Your task to perform on an android device: Search for "razer blackwidow" on bestbuy, select the first entry, and add it to the cart. Image 0: 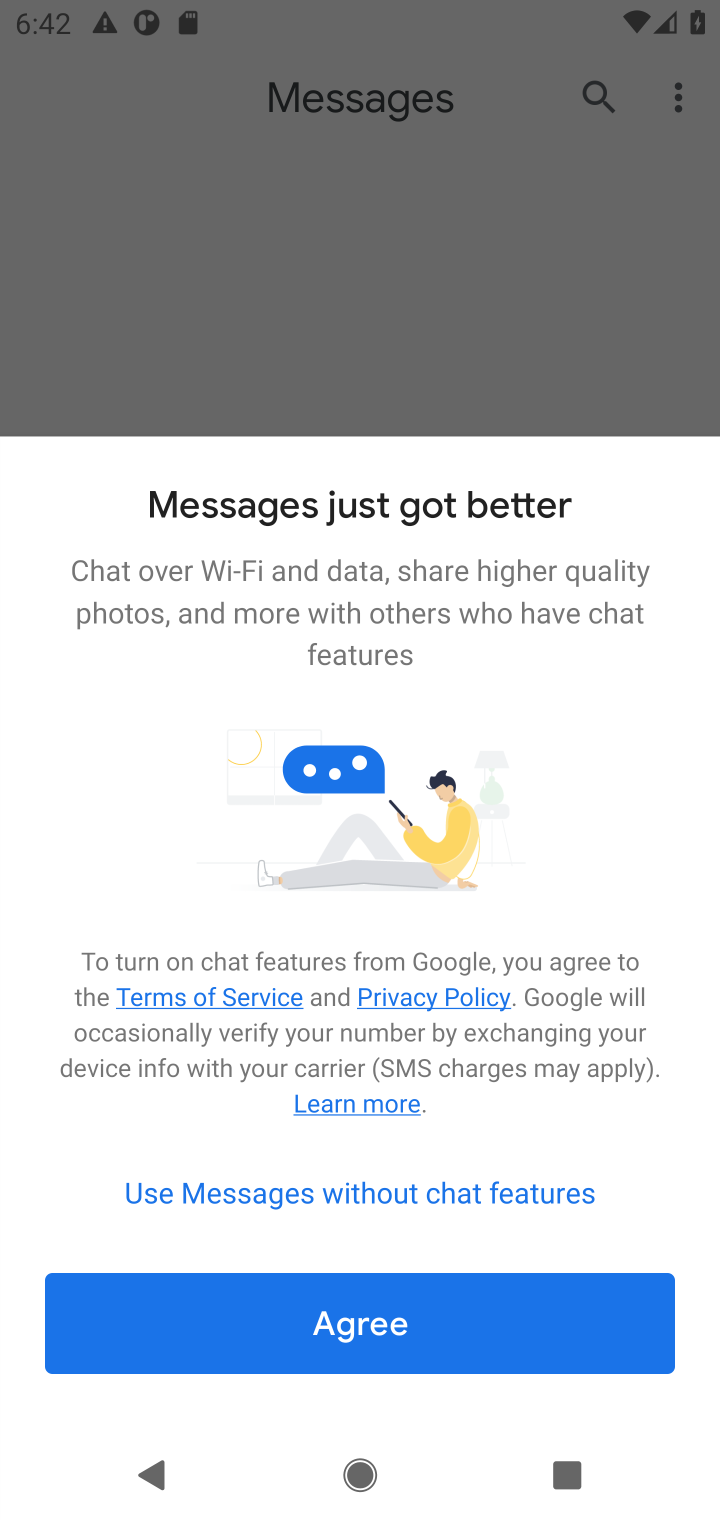
Step 0: press home button
Your task to perform on an android device: Search for "razer blackwidow" on bestbuy, select the first entry, and add it to the cart. Image 1: 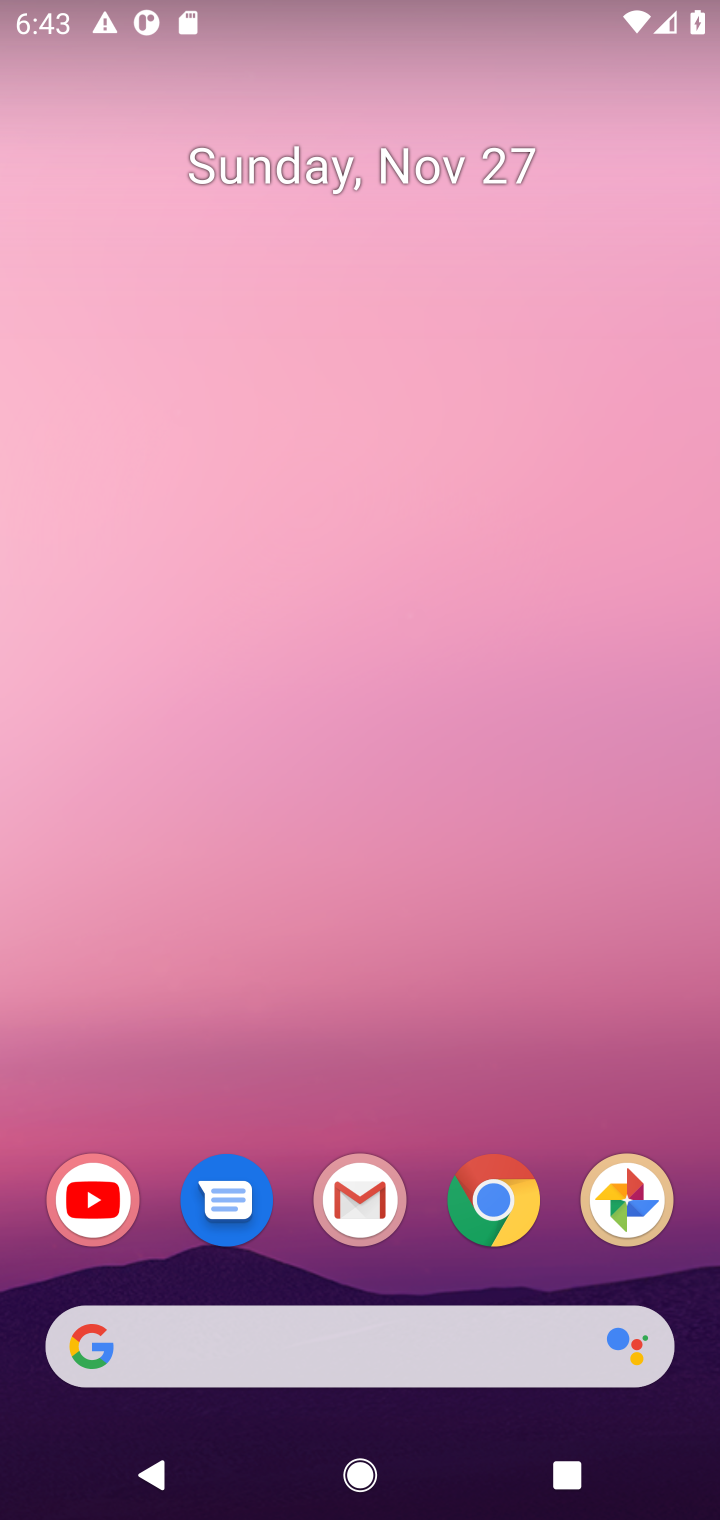
Step 1: click (505, 1212)
Your task to perform on an android device: Search for "razer blackwidow" on bestbuy, select the first entry, and add it to the cart. Image 2: 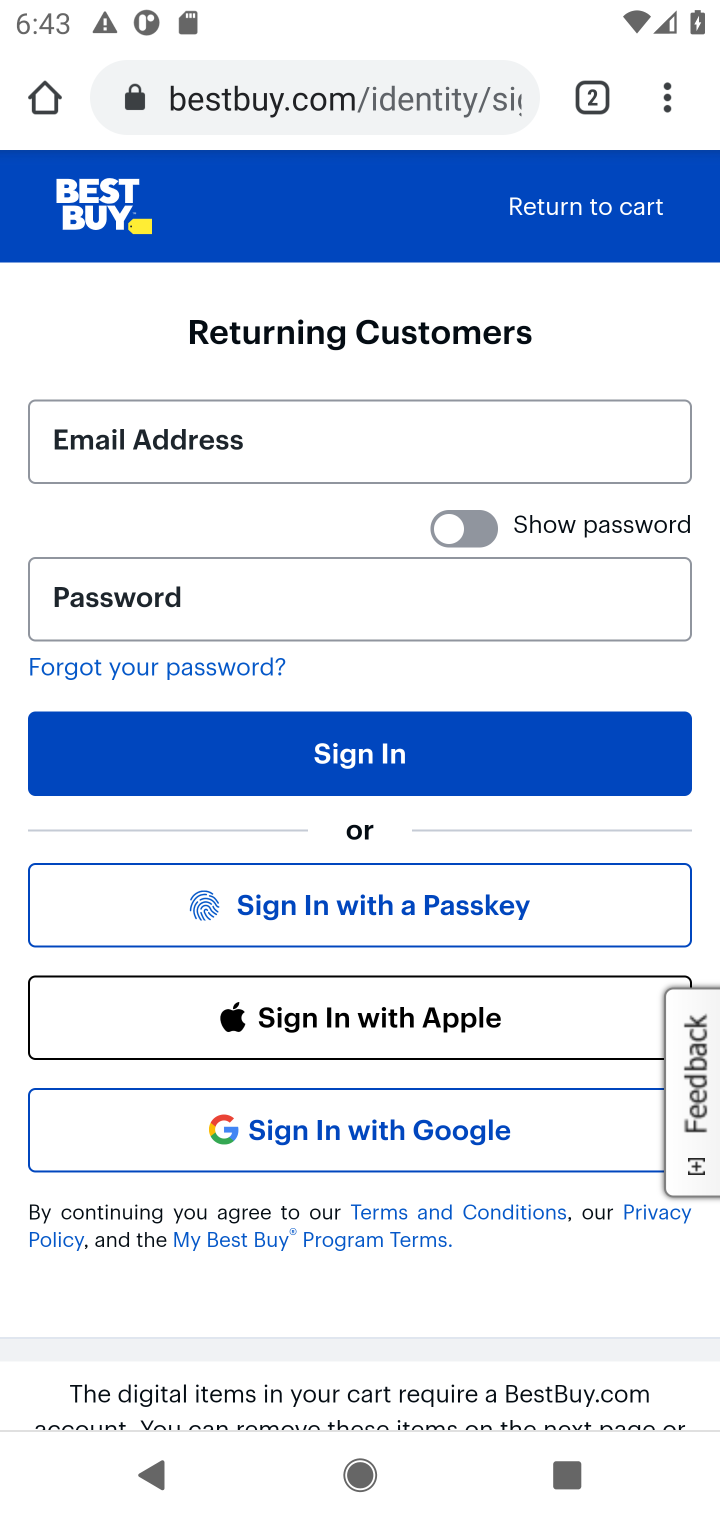
Step 2: press back button
Your task to perform on an android device: Search for "razer blackwidow" on bestbuy, select the first entry, and add it to the cart. Image 3: 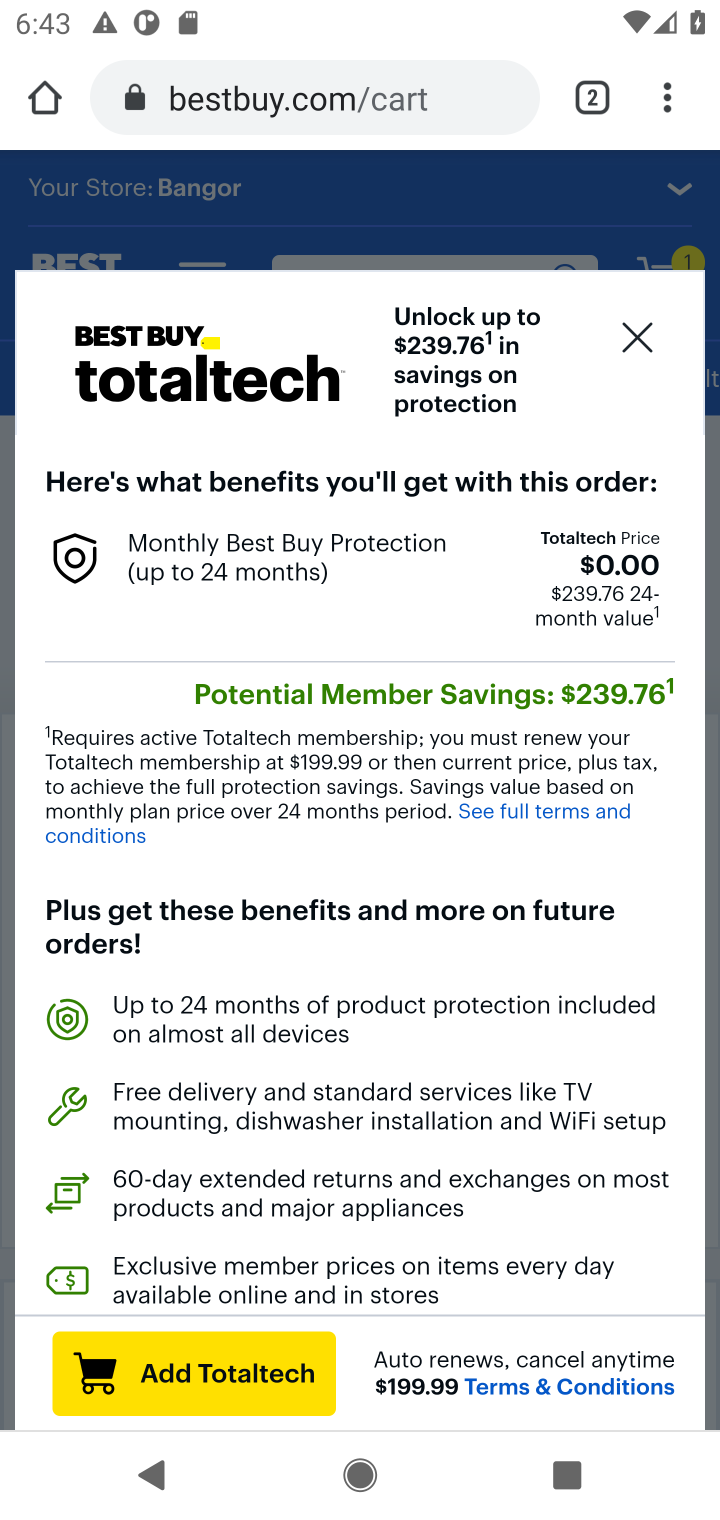
Step 3: click (629, 335)
Your task to perform on an android device: Search for "razer blackwidow" on bestbuy, select the first entry, and add it to the cart. Image 4: 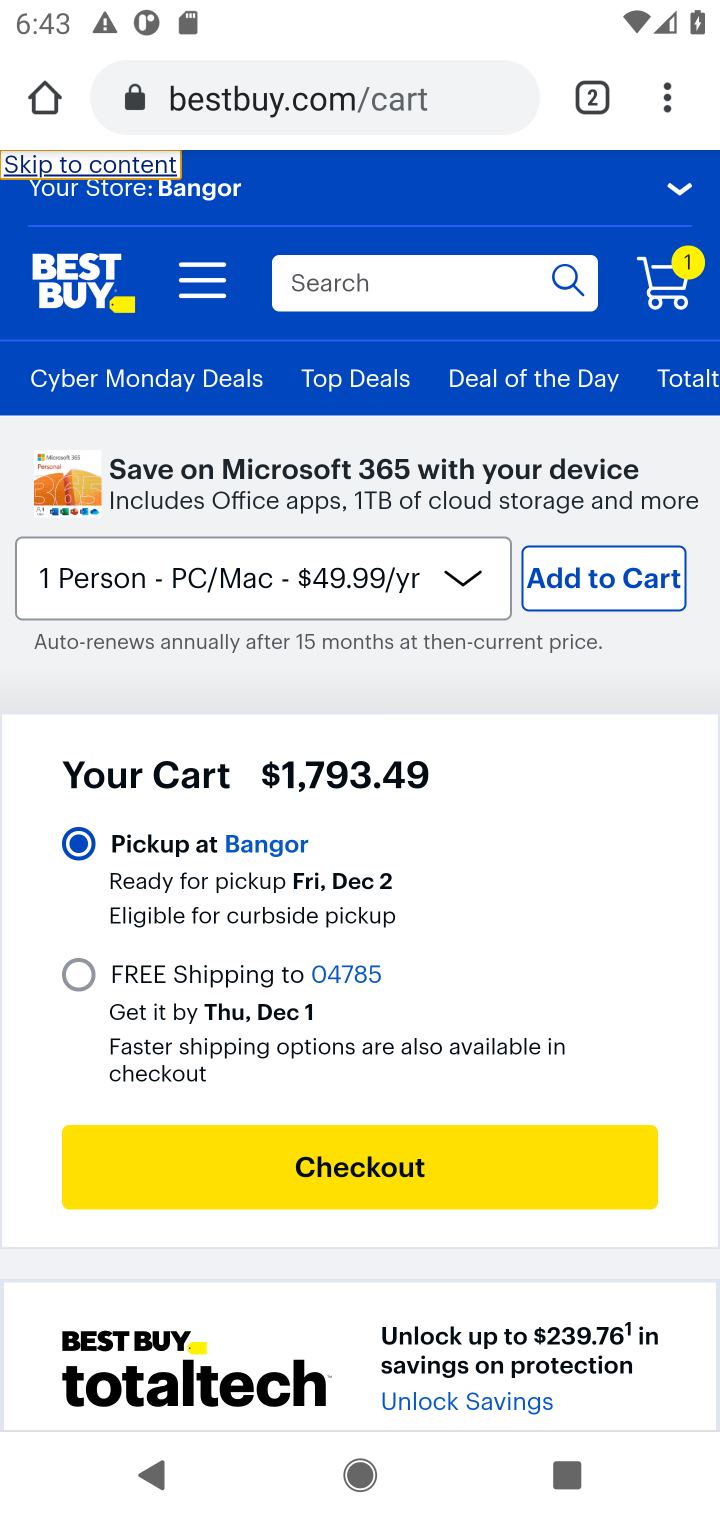
Step 4: click (394, 294)
Your task to perform on an android device: Search for "razer blackwidow" on bestbuy, select the first entry, and add it to the cart. Image 5: 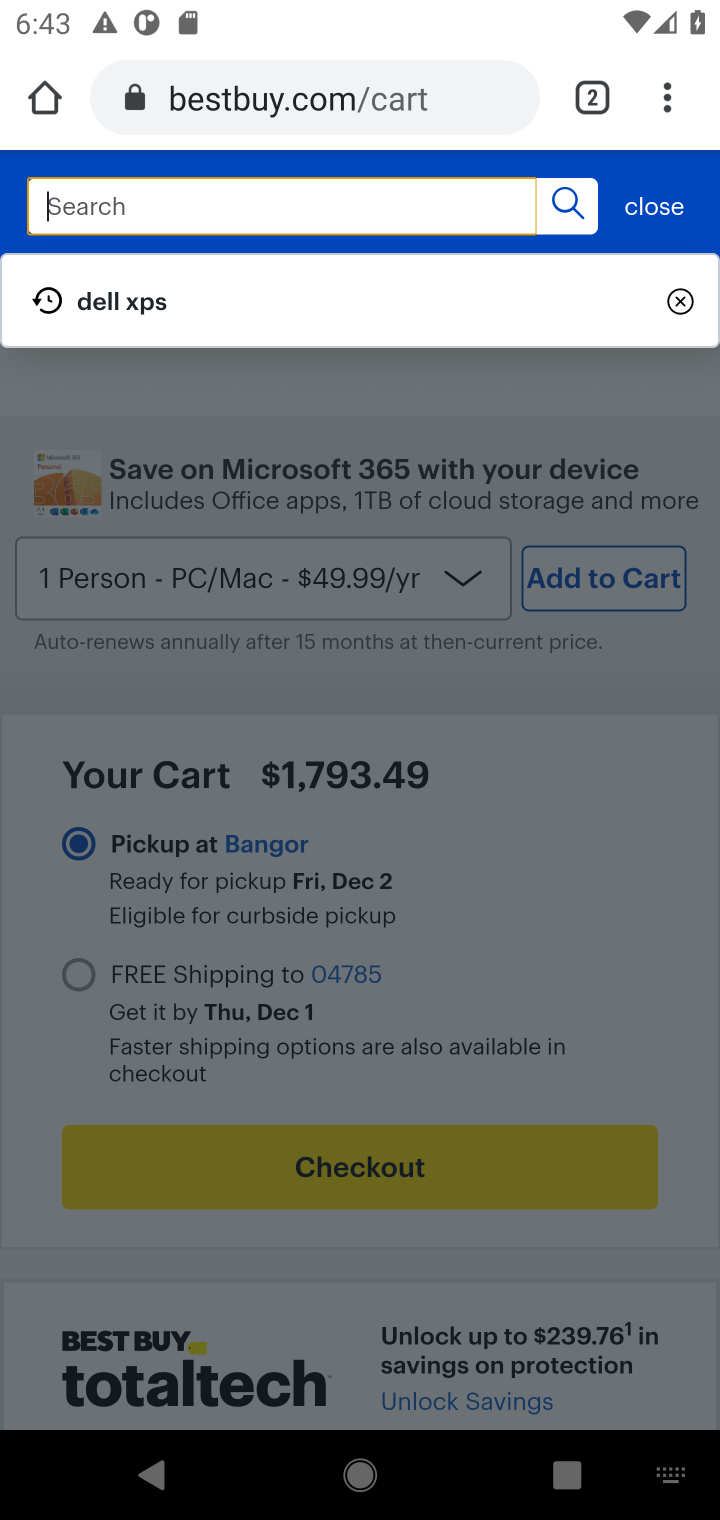
Step 5: type "razer blackwidow"
Your task to perform on an android device: Search for "razer blackwidow" on bestbuy, select the first entry, and add it to the cart. Image 6: 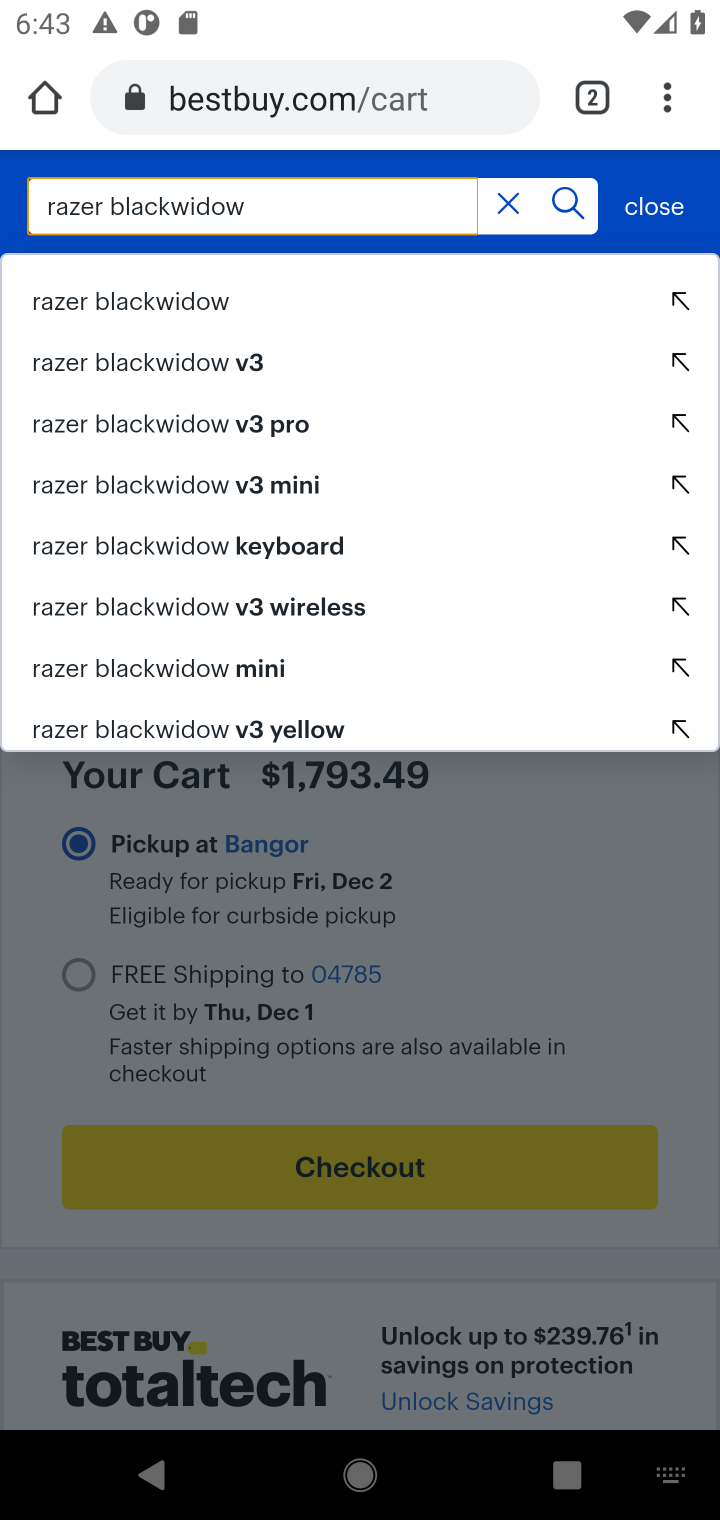
Step 6: click (164, 313)
Your task to perform on an android device: Search for "razer blackwidow" on bestbuy, select the first entry, and add it to the cart. Image 7: 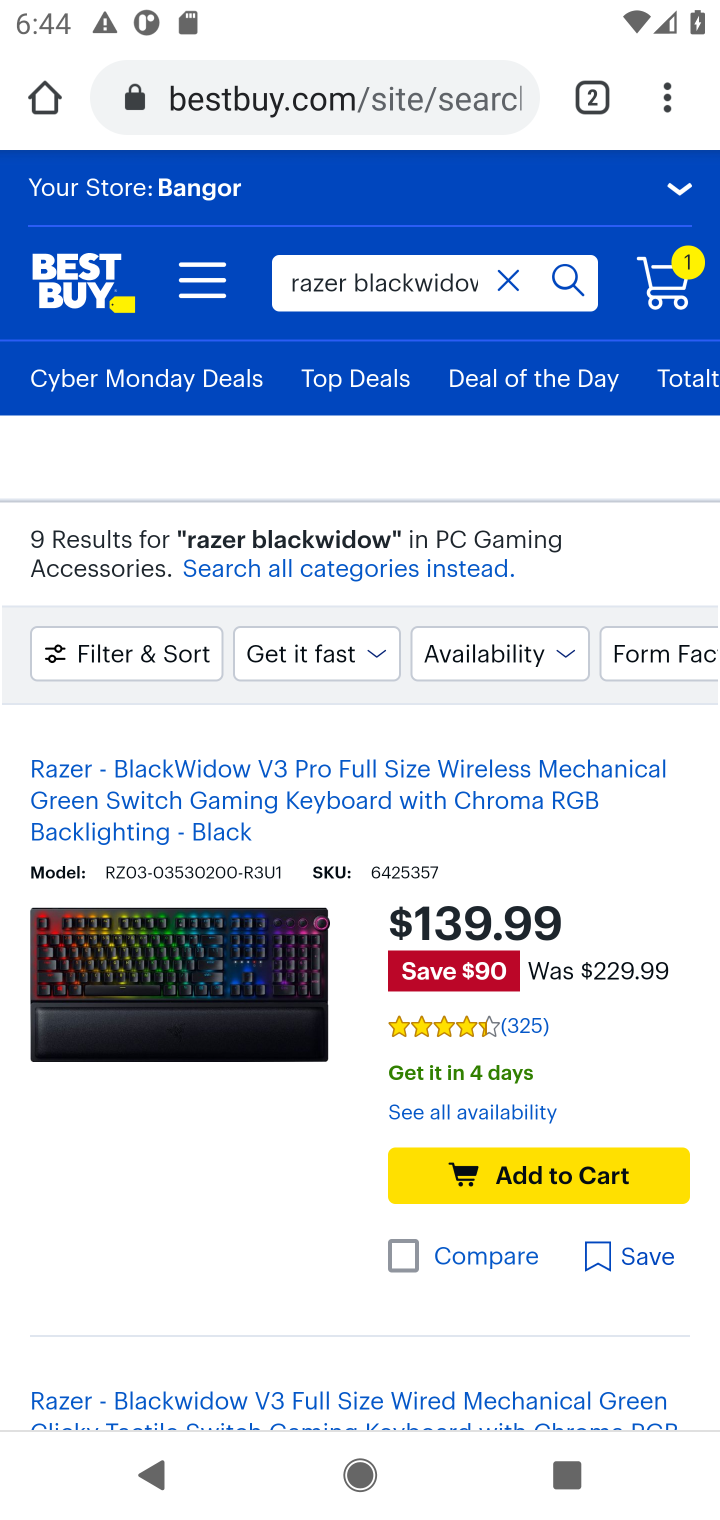
Step 7: click (525, 1179)
Your task to perform on an android device: Search for "razer blackwidow" on bestbuy, select the first entry, and add it to the cart. Image 8: 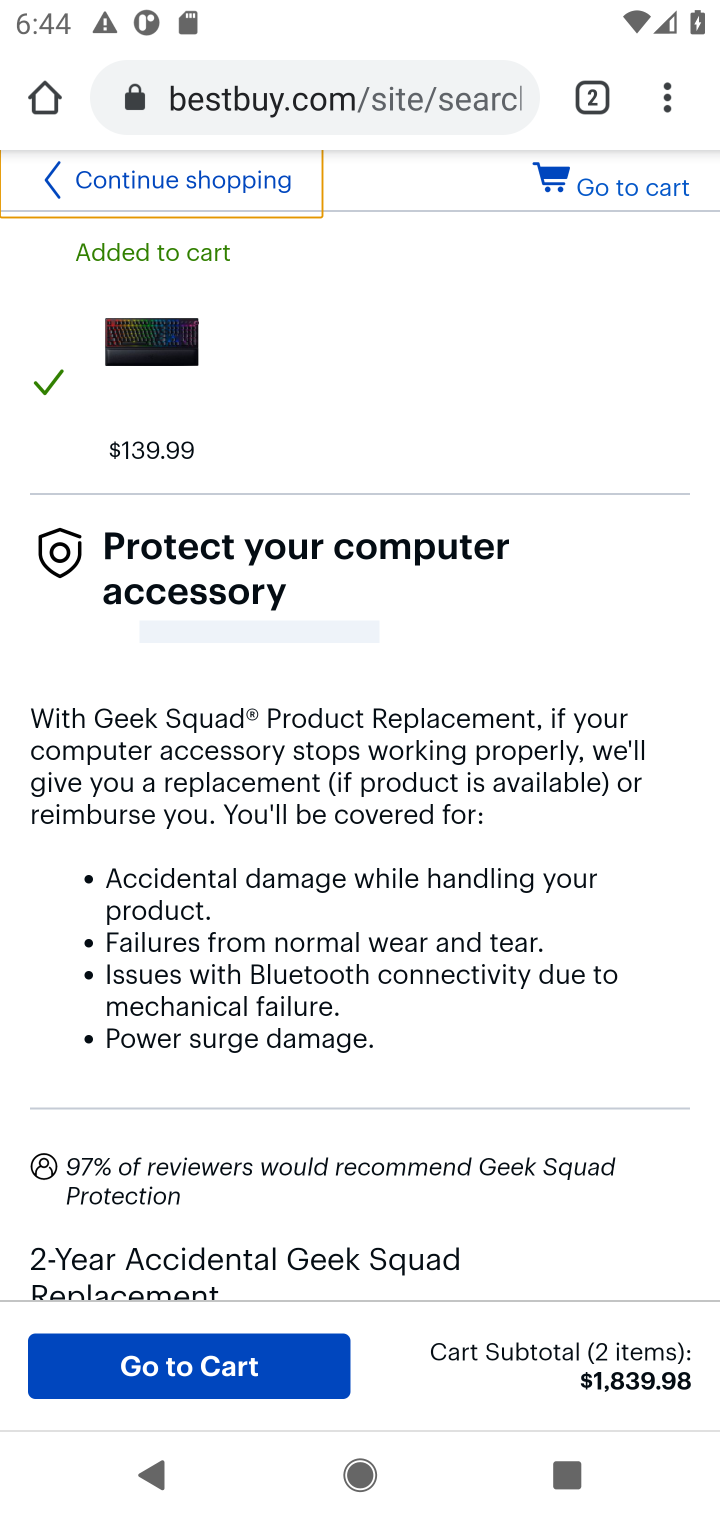
Step 8: task complete